Your task to perform on an android device: change the clock display to digital Image 0: 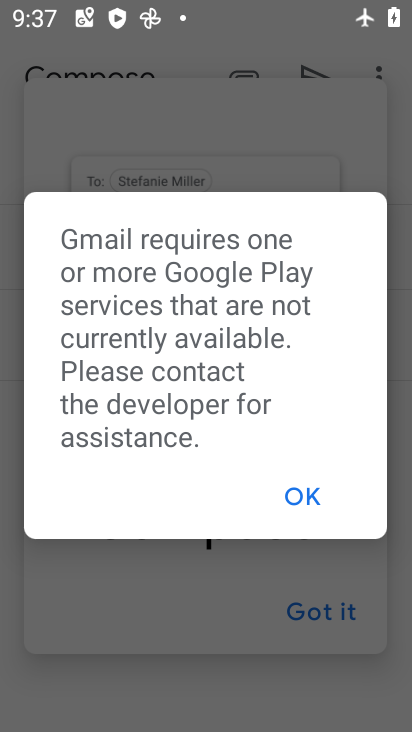
Step 0: press home button
Your task to perform on an android device: change the clock display to digital Image 1: 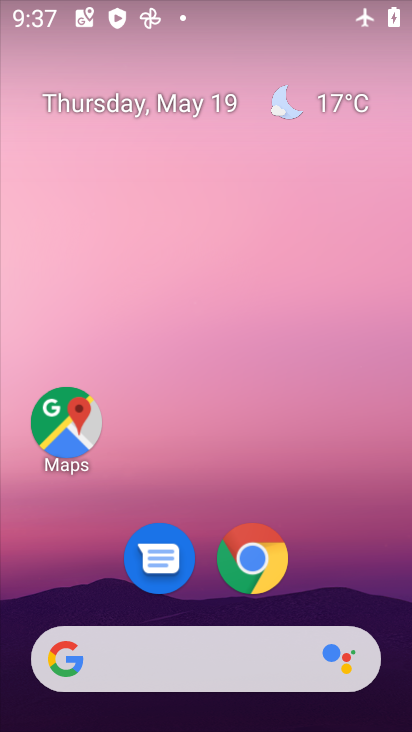
Step 1: drag from (185, 722) to (148, 167)
Your task to perform on an android device: change the clock display to digital Image 2: 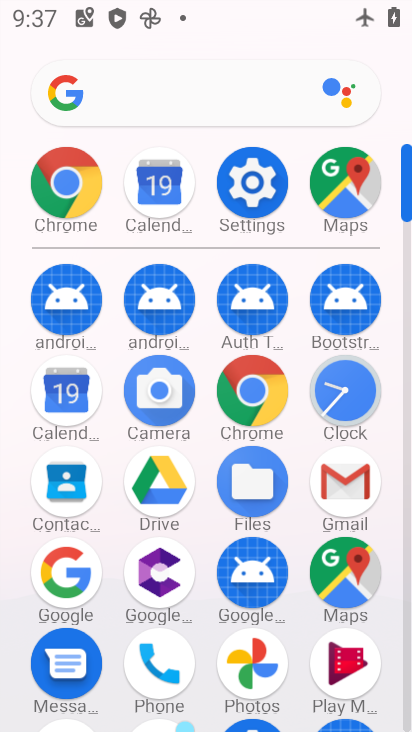
Step 2: drag from (207, 591) to (209, 289)
Your task to perform on an android device: change the clock display to digital Image 3: 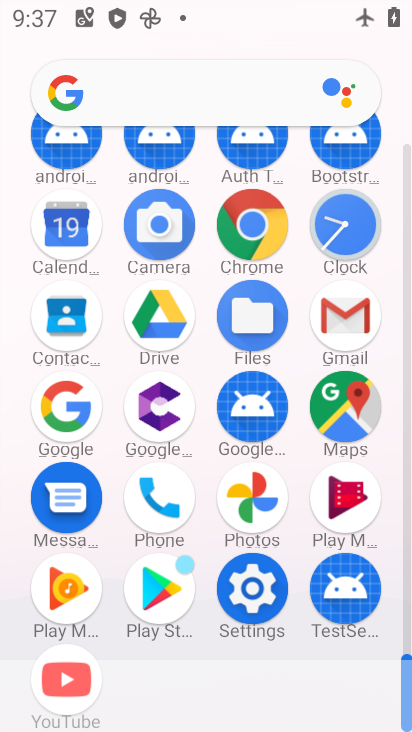
Step 3: click (345, 244)
Your task to perform on an android device: change the clock display to digital Image 4: 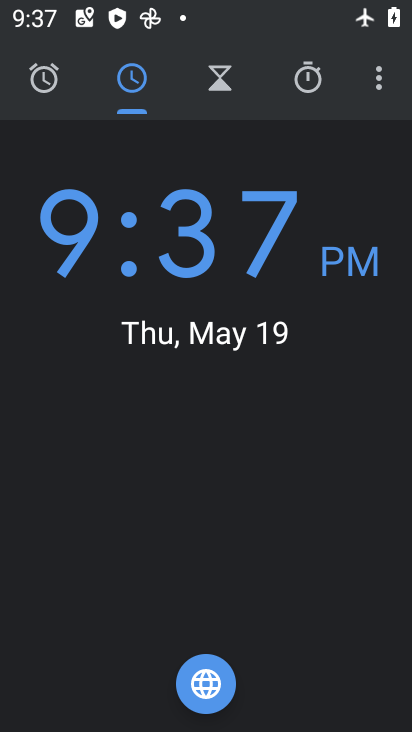
Step 4: click (380, 89)
Your task to perform on an android device: change the clock display to digital Image 5: 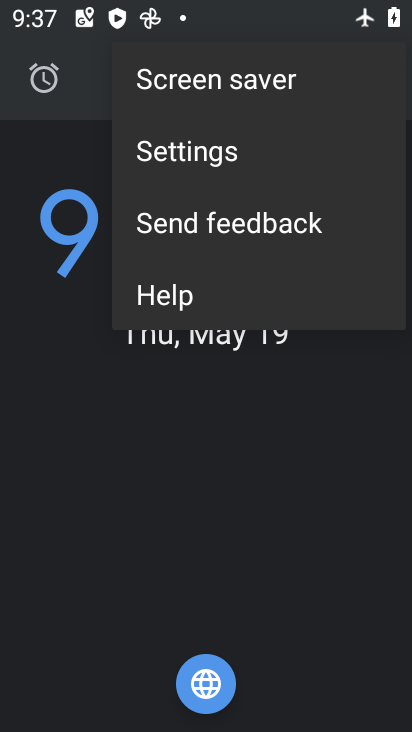
Step 5: click (201, 152)
Your task to perform on an android device: change the clock display to digital Image 6: 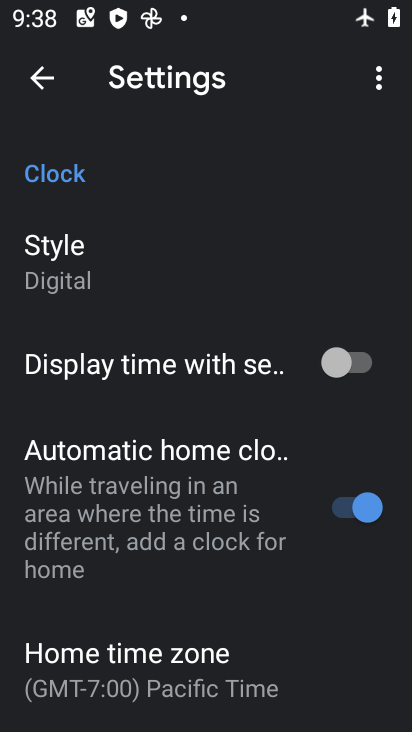
Step 6: task complete